Your task to perform on an android device: Go to Yahoo.com Image 0: 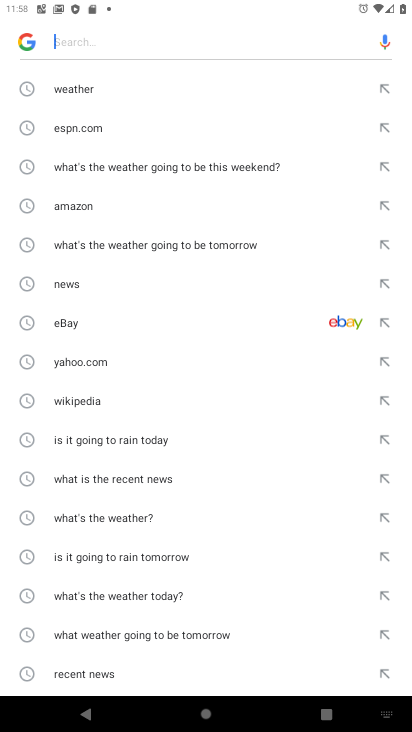
Step 0: press home button
Your task to perform on an android device: Go to Yahoo.com Image 1: 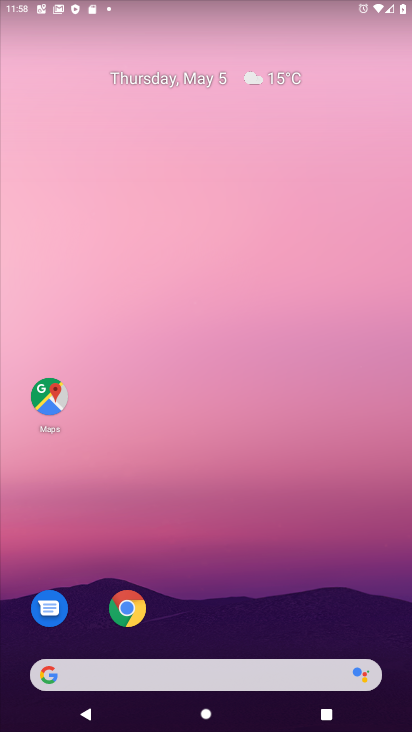
Step 1: click (117, 607)
Your task to perform on an android device: Go to Yahoo.com Image 2: 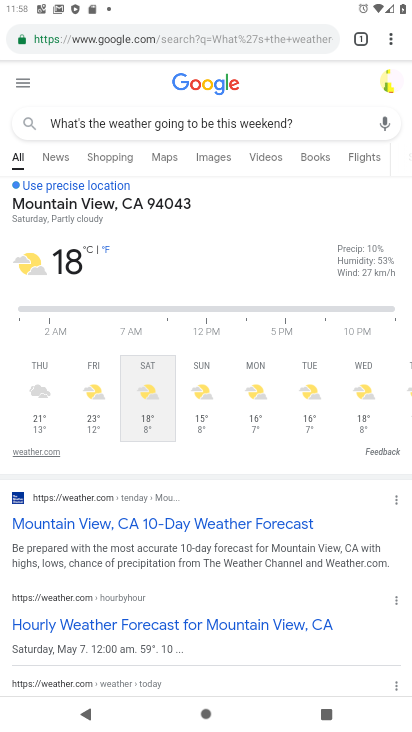
Step 2: click (108, 37)
Your task to perform on an android device: Go to Yahoo.com Image 3: 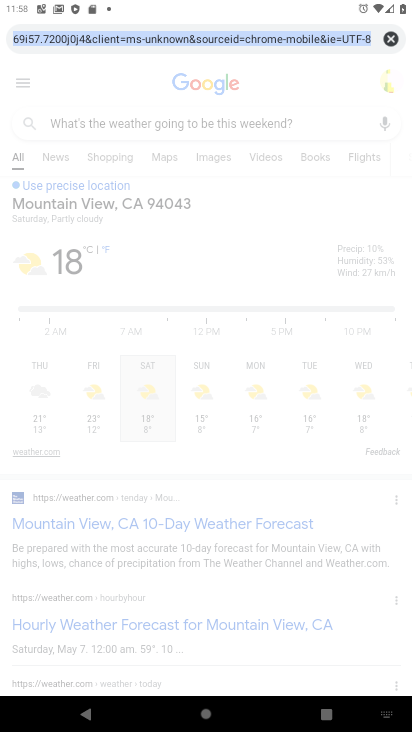
Step 3: type "yahoo.com"
Your task to perform on an android device: Go to Yahoo.com Image 4: 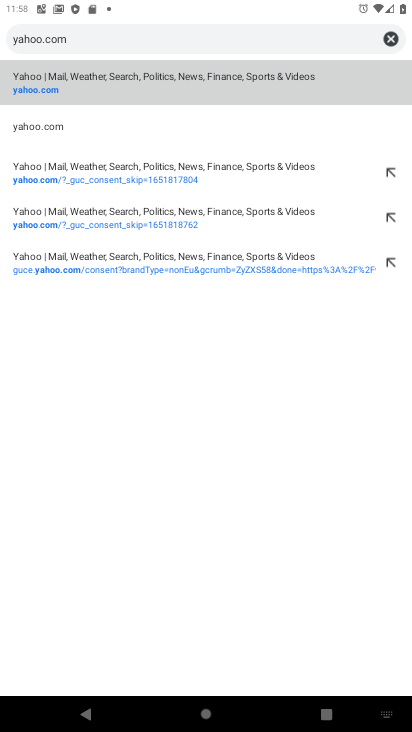
Step 4: click (70, 77)
Your task to perform on an android device: Go to Yahoo.com Image 5: 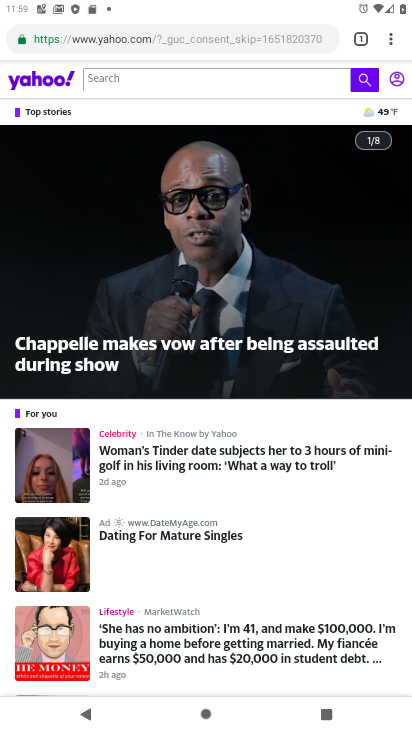
Step 5: task complete